Your task to perform on an android device: show emergency info Image 0: 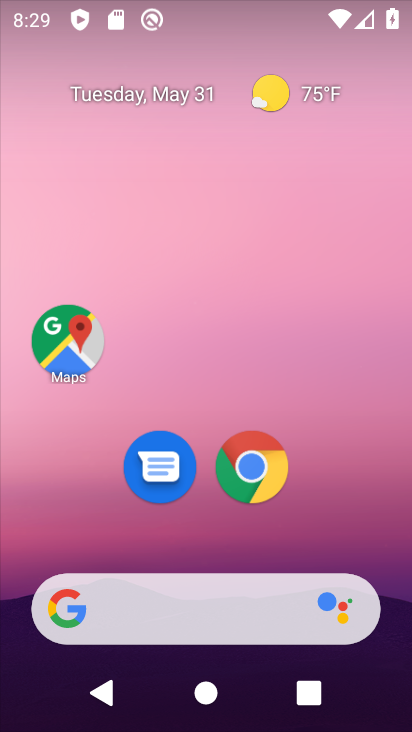
Step 0: drag from (141, 530) to (260, 250)
Your task to perform on an android device: show emergency info Image 1: 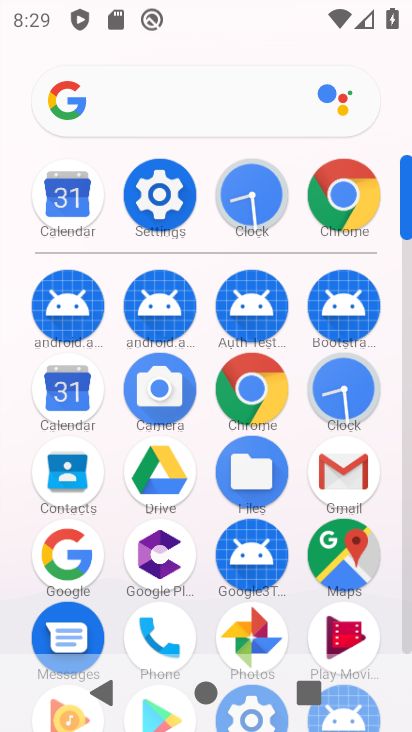
Step 1: click (152, 202)
Your task to perform on an android device: show emergency info Image 2: 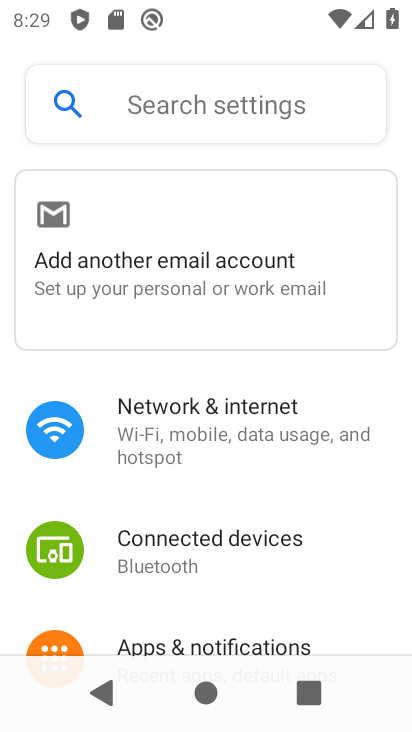
Step 2: drag from (179, 585) to (278, 22)
Your task to perform on an android device: show emergency info Image 3: 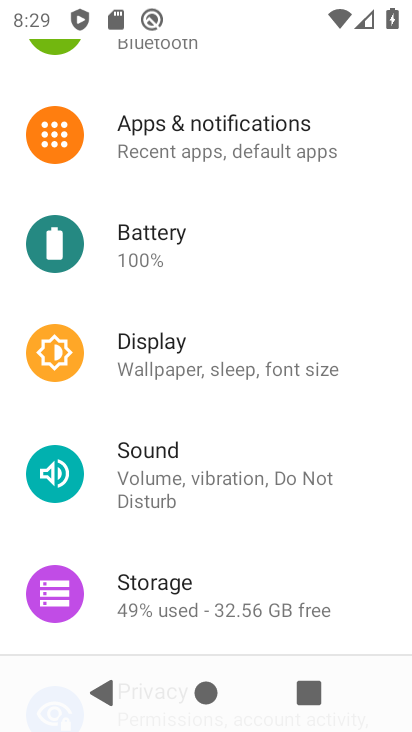
Step 3: drag from (212, 512) to (305, 10)
Your task to perform on an android device: show emergency info Image 4: 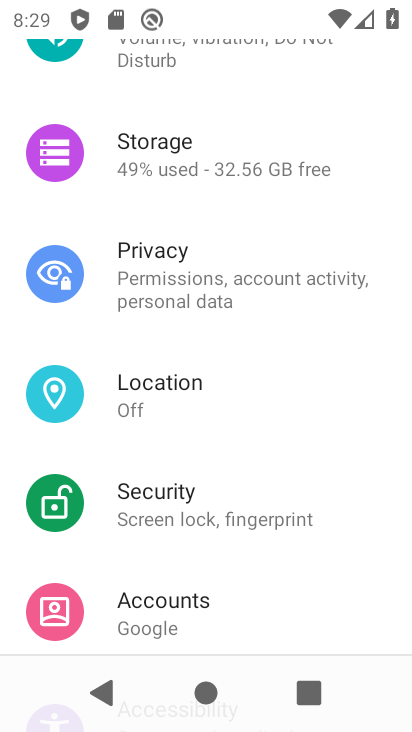
Step 4: drag from (206, 593) to (227, 8)
Your task to perform on an android device: show emergency info Image 5: 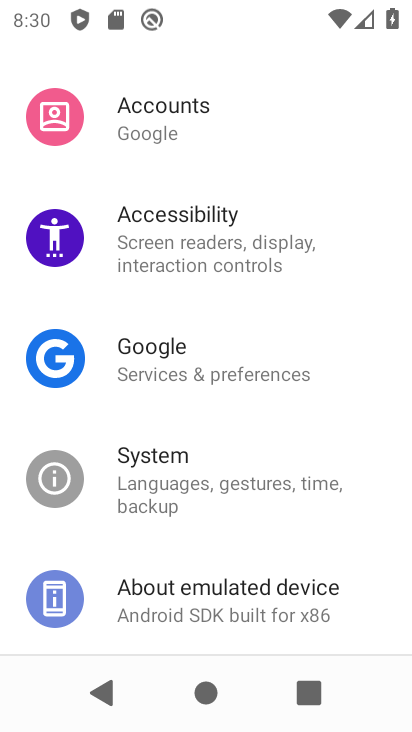
Step 5: click (196, 604)
Your task to perform on an android device: show emergency info Image 6: 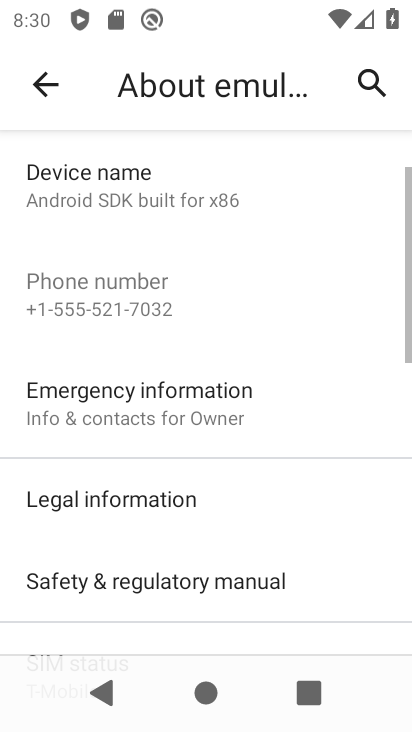
Step 6: click (116, 396)
Your task to perform on an android device: show emergency info Image 7: 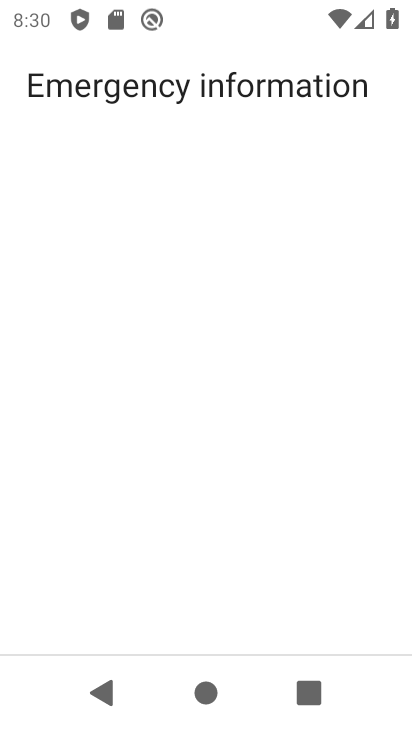
Step 7: task complete